Your task to perform on an android device: What is the recent news? Image 0: 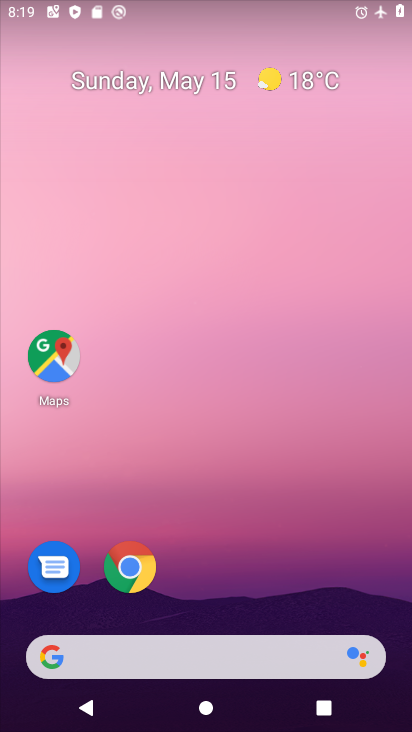
Step 0: click (195, 670)
Your task to perform on an android device: What is the recent news? Image 1: 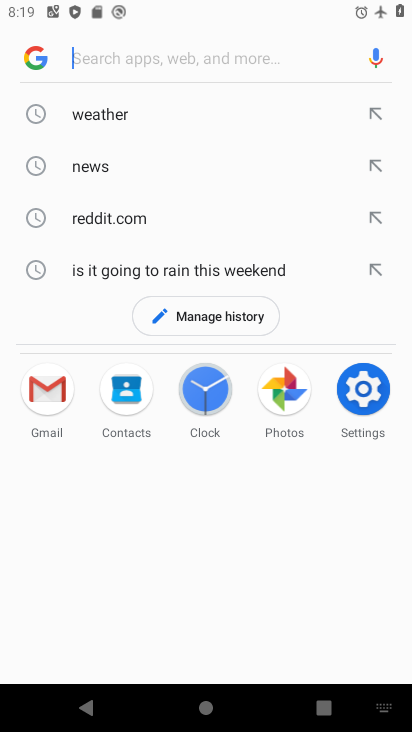
Step 1: type "recent news"
Your task to perform on an android device: What is the recent news? Image 2: 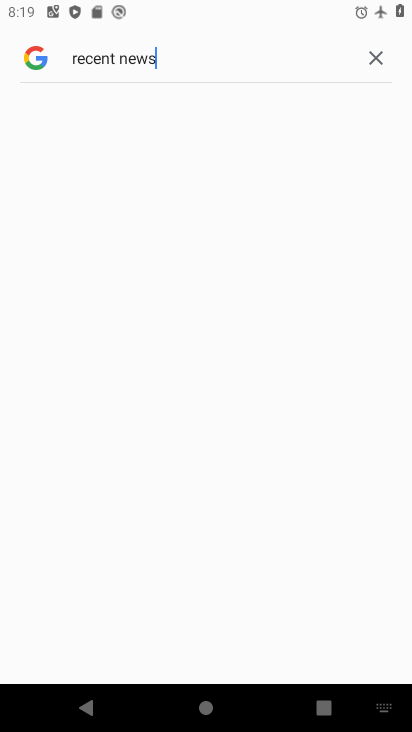
Step 2: task complete